Your task to perform on an android device: Is it going to rain today? Image 0: 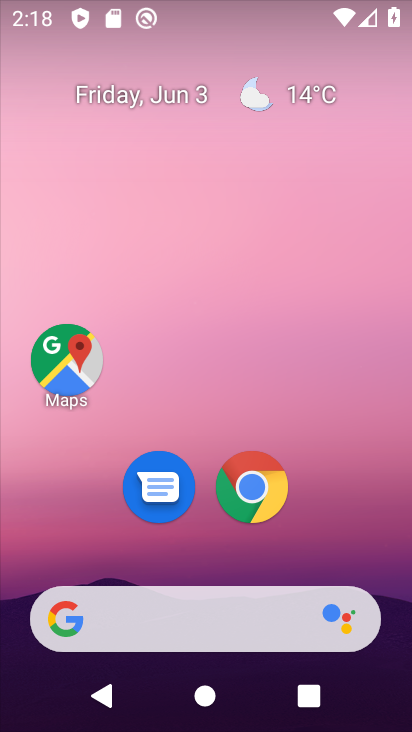
Step 0: click (320, 102)
Your task to perform on an android device: Is it going to rain today? Image 1: 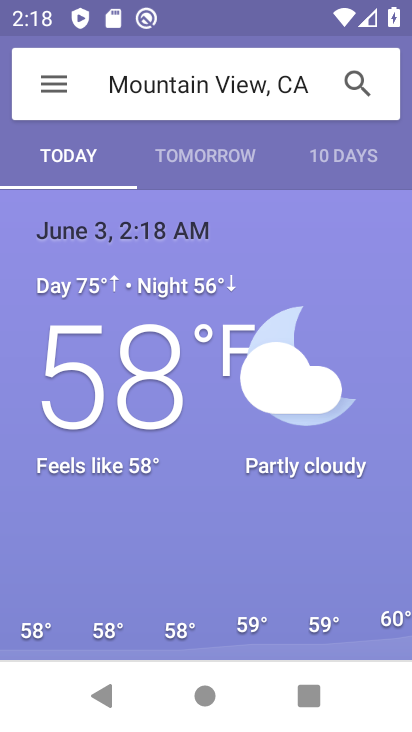
Step 1: task complete